Your task to perform on an android device: set the stopwatch Image 0: 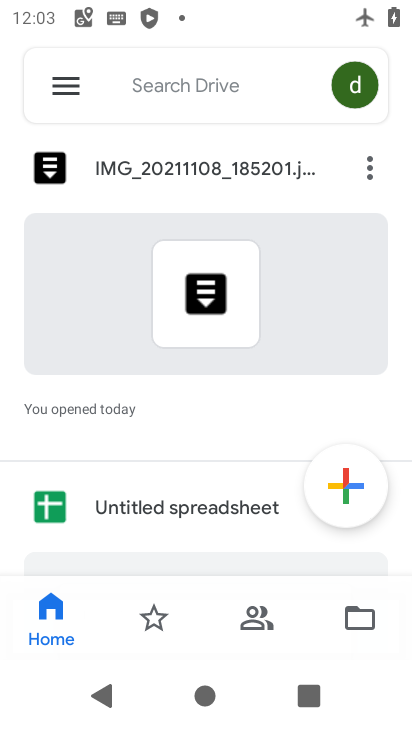
Step 0: press home button
Your task to perform on an android device: set the stopwatch Image 1: 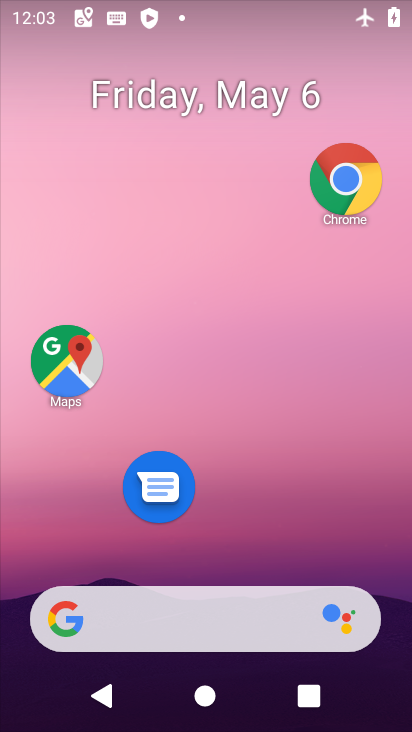
Step 1: drag from (258, 546) to (281, 82)
Your task to perform on an android device: set the stopwatch Image 2: 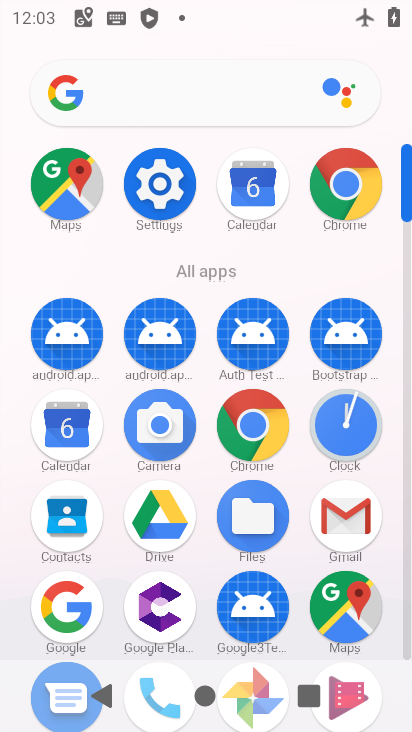
Step 2: click (340, 429)
Your task to perform on an android device: set the stopwatch Image 3: 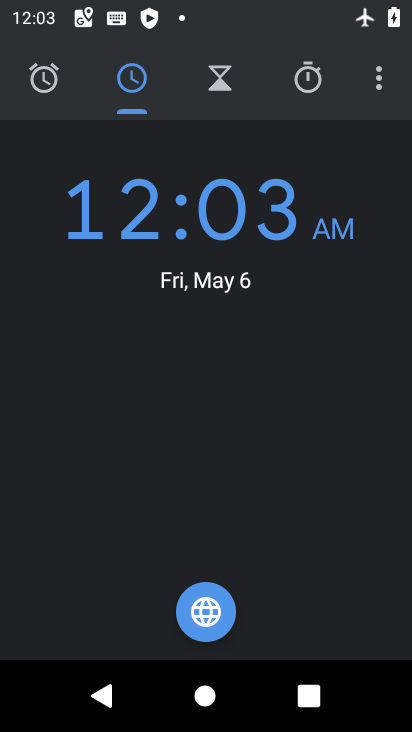
Step 3: click (296, 109)
Your task to perform on an android device: set the stopwatch Image 4: 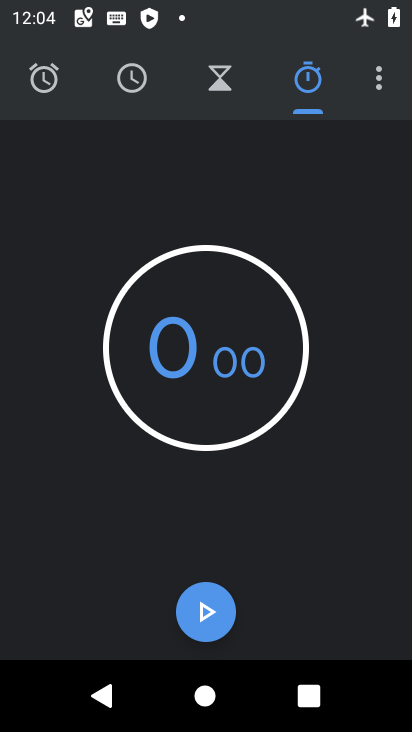
Step 4: task complete